Your task to perform on an android device: toggle data saver in the chrome app Image 0: 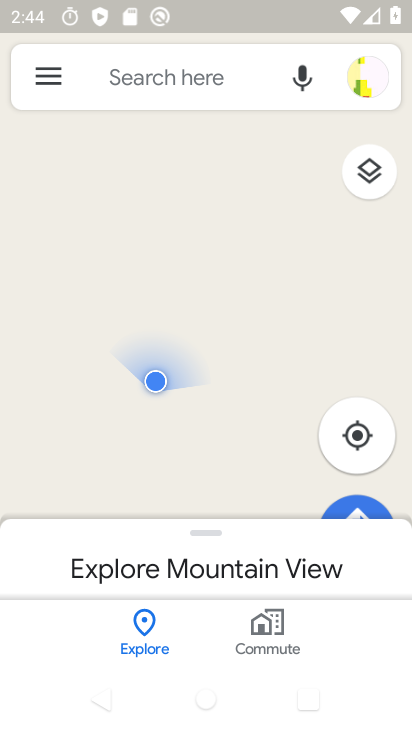
Step 0: press home button
Your task to perform on an android device: toggle data saver in the chrome app Image 1: 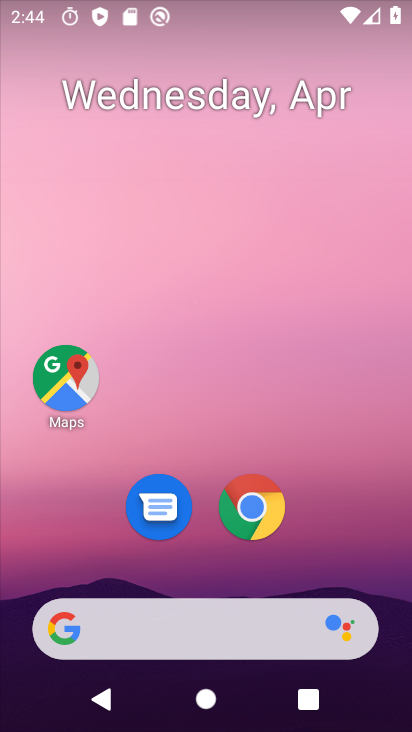
Step 1: click (265, 523)
Your task to perform on an android device: toggle data saver in the chrome app Image 2: 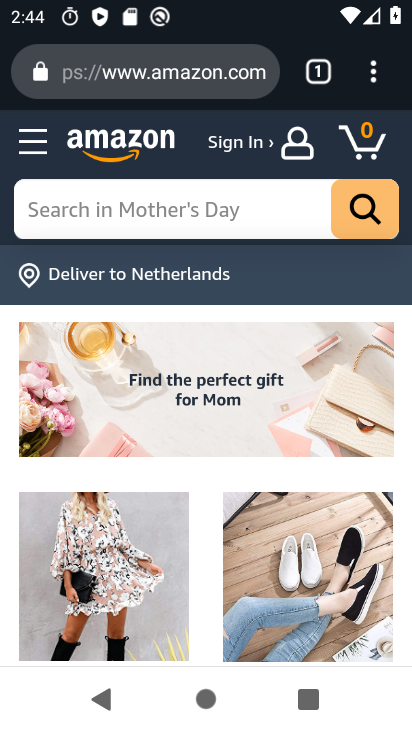
Step 2: drag from (373, 68) to (117, 502)
Your task to perform on an android device: toggle data saver in the chrome app Image 3: 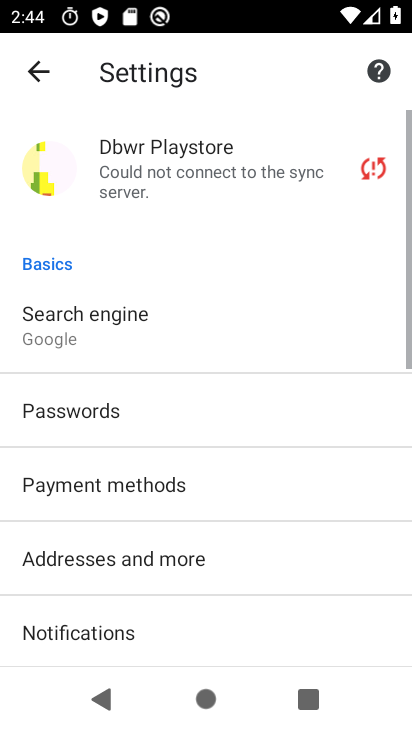
Step 3: drag from (111, 578) to (57, 175)
Your task to perform on an android device: toggle data saver in the chrome app Image 4: 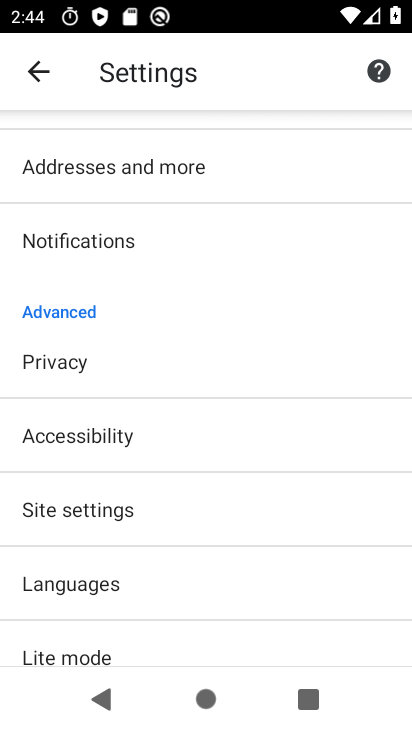
Step 4: click (77, 654)
Your task to perform on an android device: toggle data saver in the chrome app Image 5: 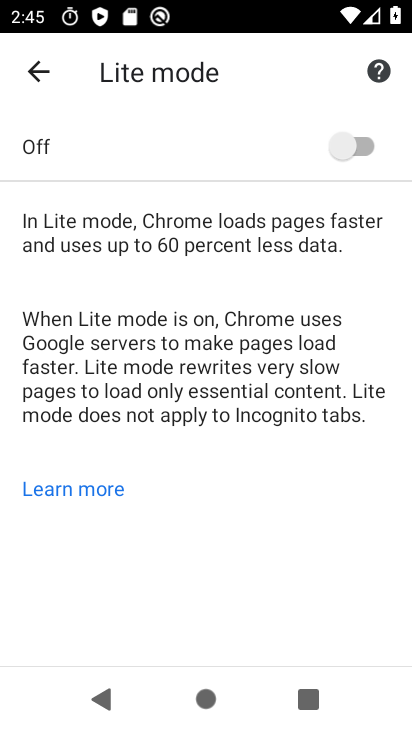
Step 5: click (347, 146)
Your task to perform on an android device: toggle data saver in the chrome app Image 6: 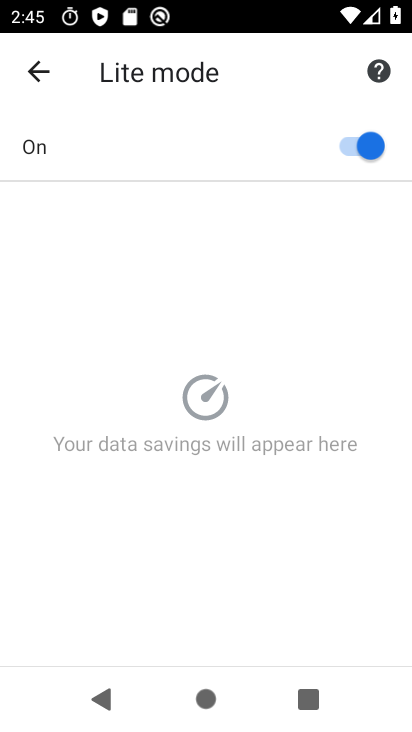
Step 6: task complete